Your task to perform on an android device: Open settings Image 0: 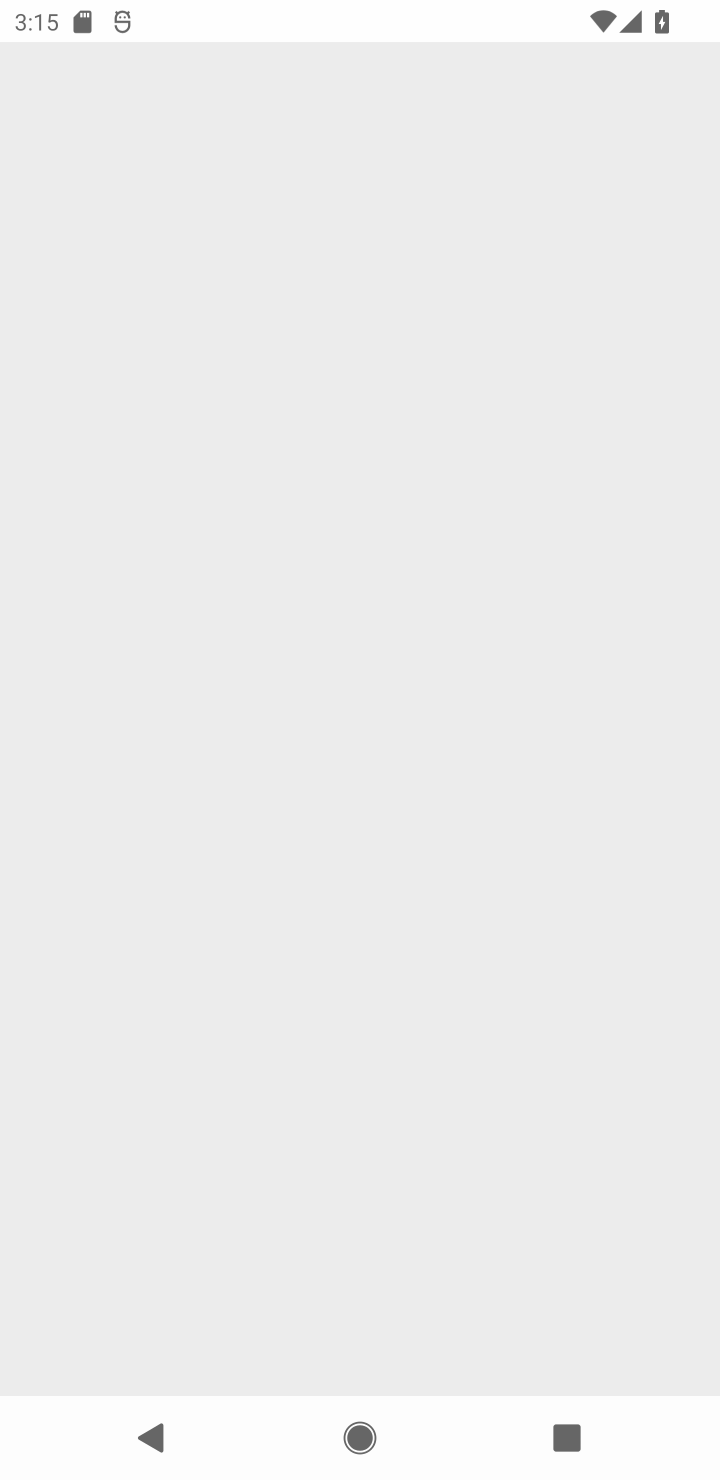
Step 0: press home button
Your task to perform on an android device: Open settings Image 1: 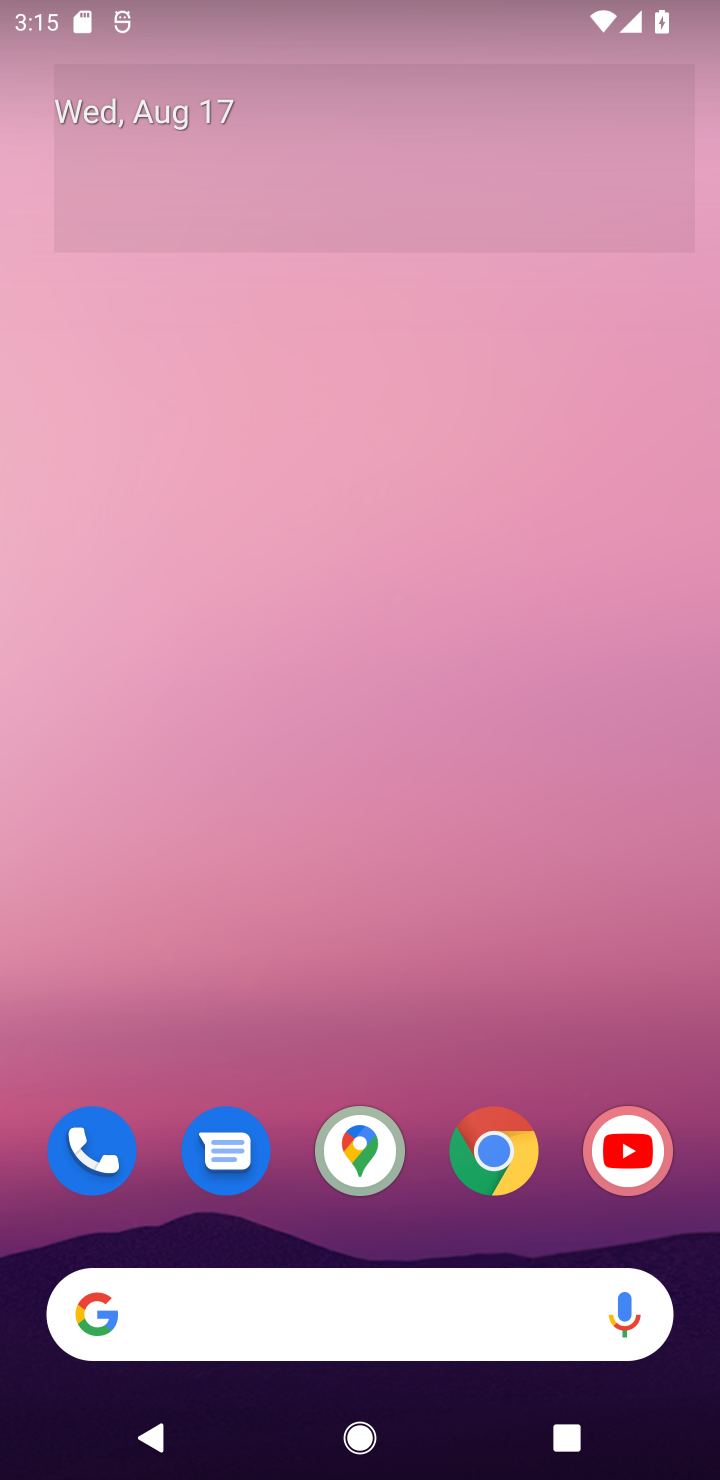
Step 1: drag from (405, 1245) to (457, 150)
Your task to perform on an android device: Open settings Image 2: 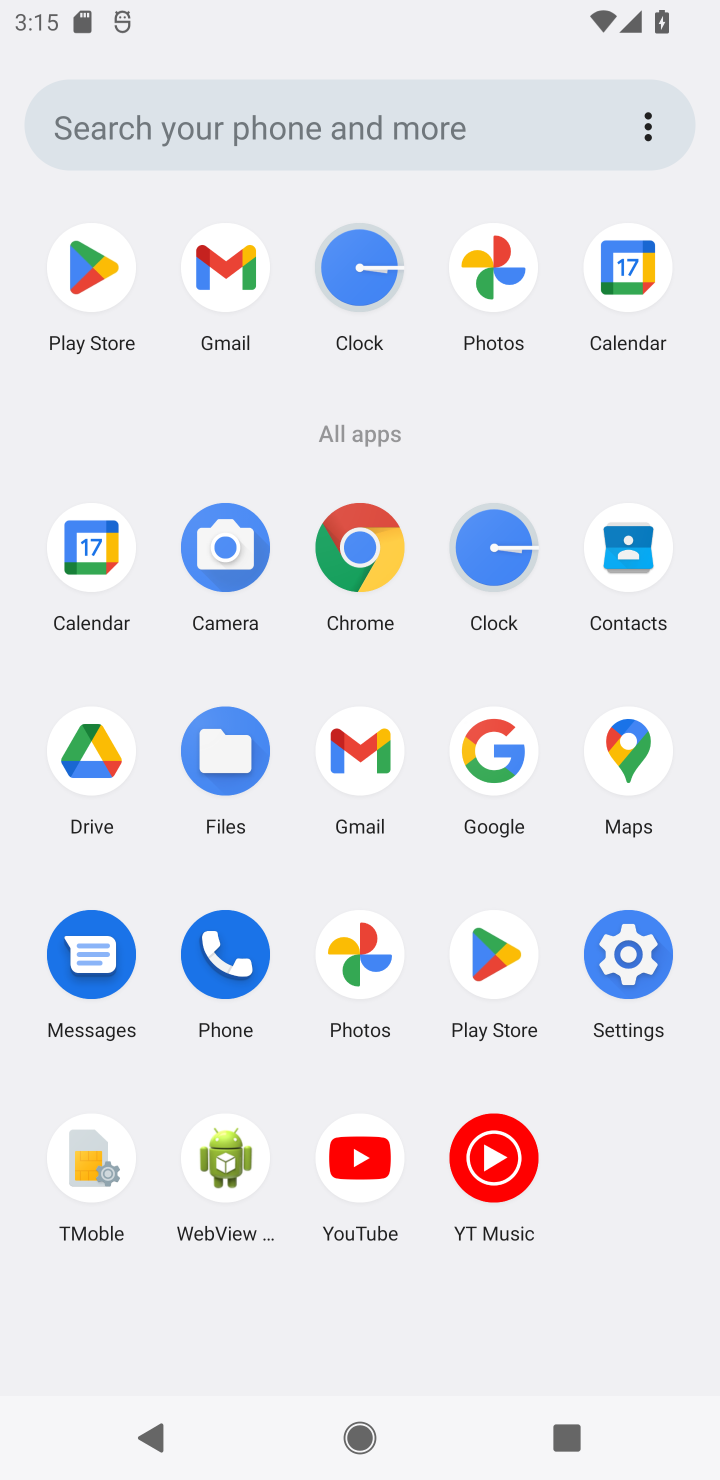
Step 2: click (612, 926)
Your task to perform on an android device: Open settings Image 3: 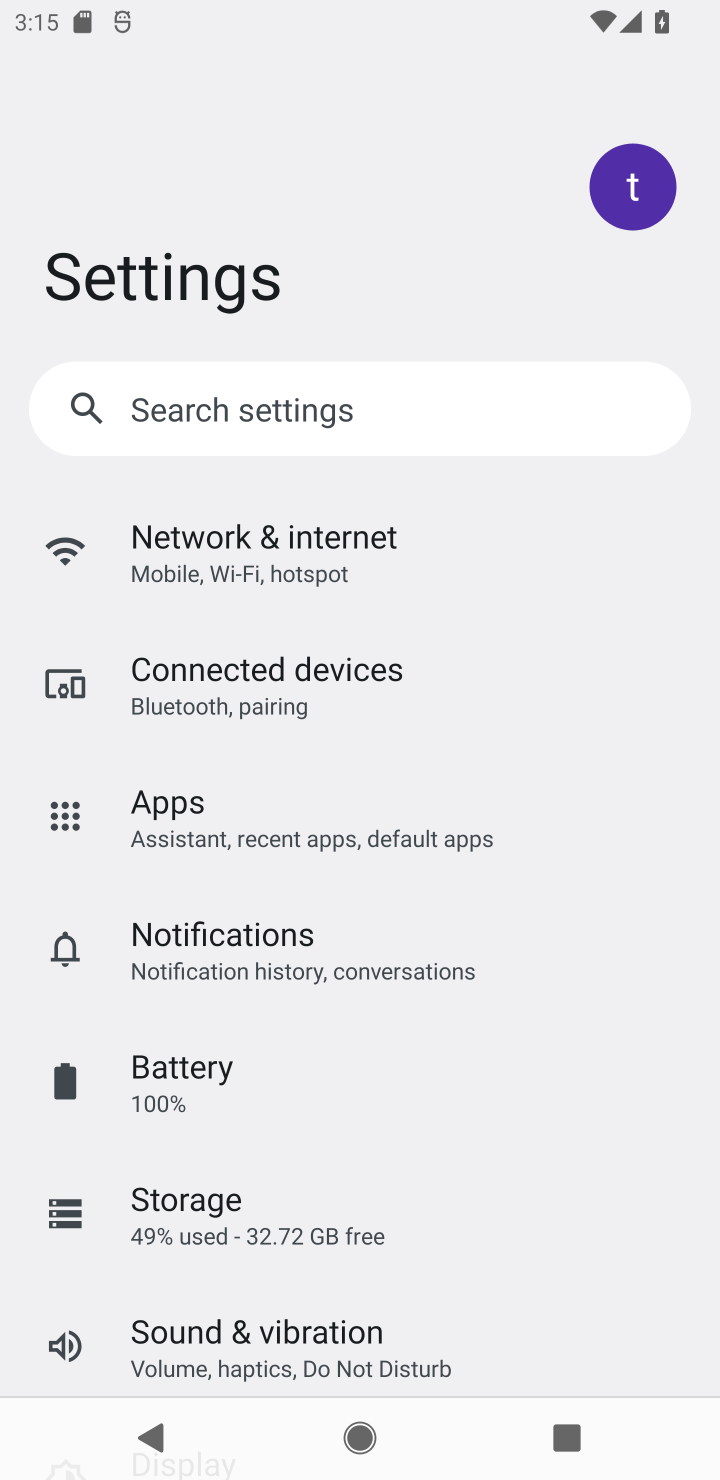
Step 3: task complete